Your task to perform on an android device: star an email in the gmail app Image 0: 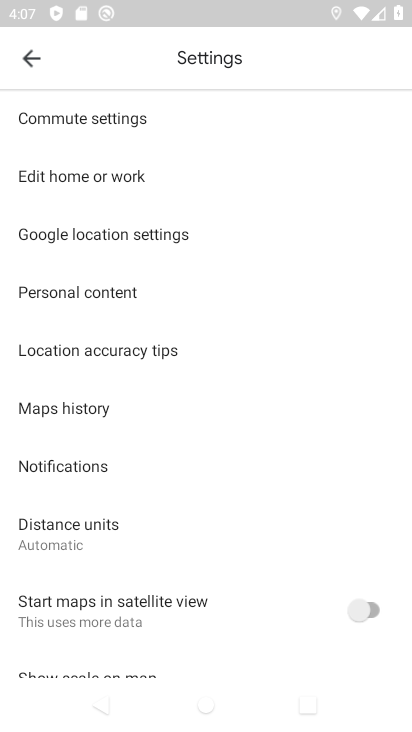
Step 0: press home button
Your task to perform on an android device: star an email in the gmail app Image 1: 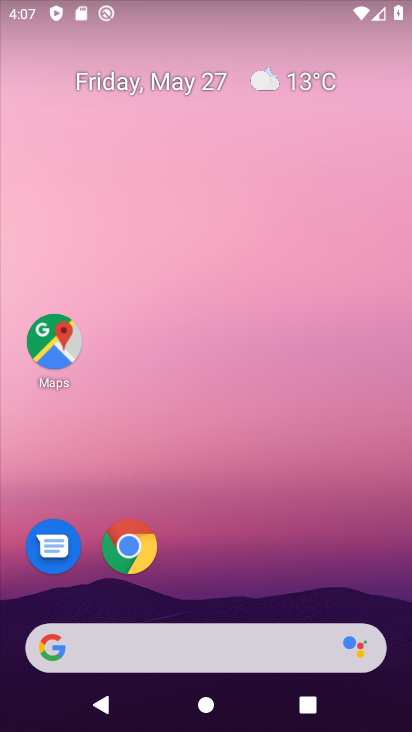
Step 1: drag from (169, 612) to (259, 185)
Your task to perform on an android device: star an email in the gmail app Image 2: 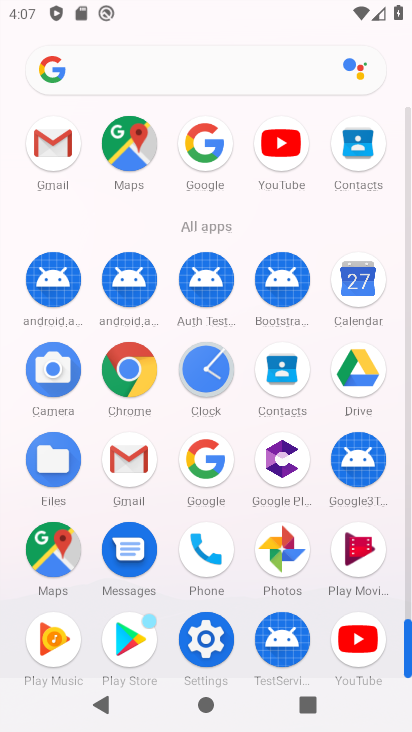
Step 2: click (123, 449)
Your task to perform on an android device: star an email in the gmail app Image 3: 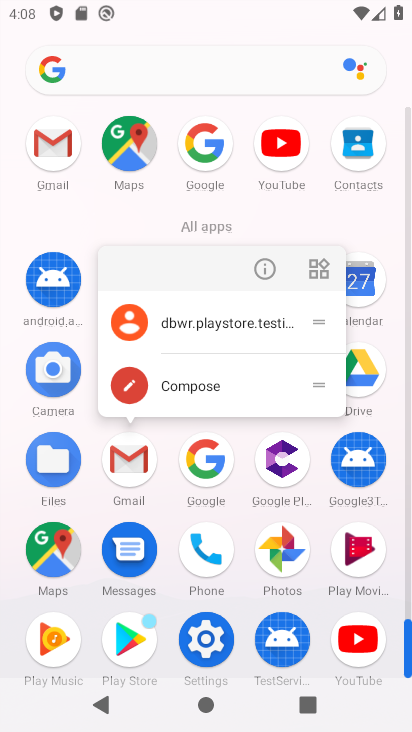
Step 3: click (146, 474)
Your task to perform on an android device: star an email in the gmail app Image 4: 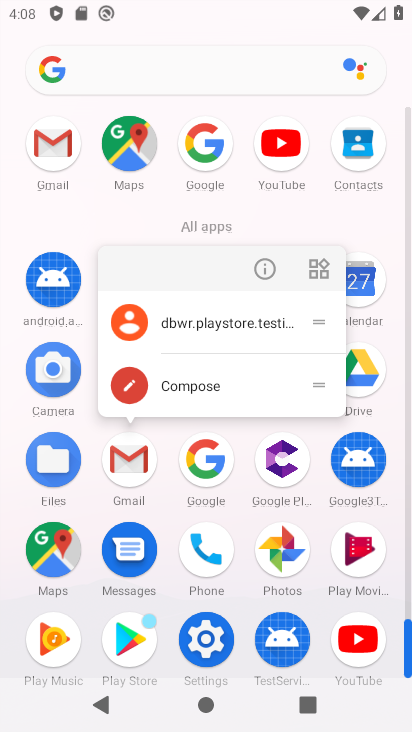
Step 4: click (142, 474)
Your task to perform on an android device: star an email in the gmail app Image 5: 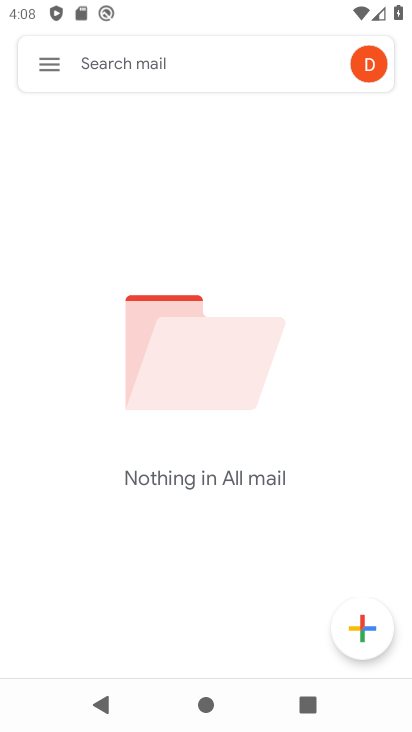
Step 5: click (54, 35)
Your task to perform on an android device: star an email in the gmail app Image 6: 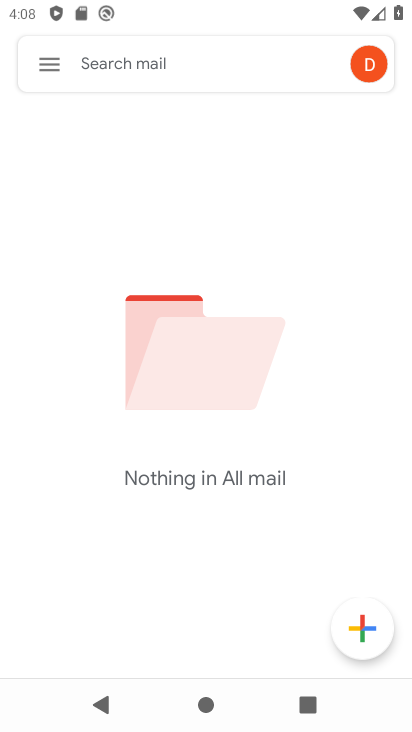
Step 6: task complete